Your task to perform on an android device: toggle airplane mode Image 0: 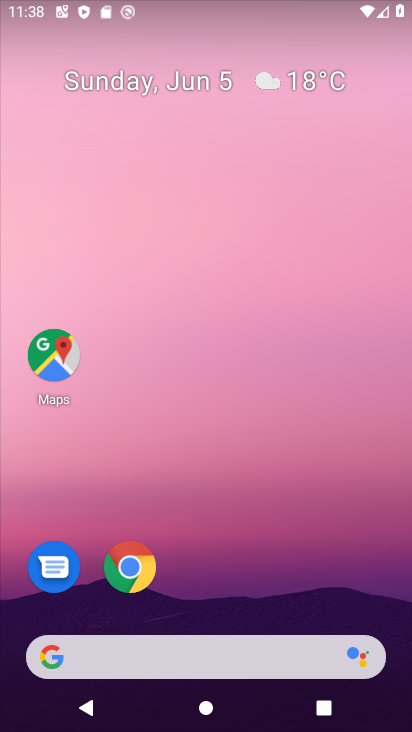
Step 0: drag from (270, 487) to (284, 28)
Your task to perform on an android device: toggle airplane mode Image 1: 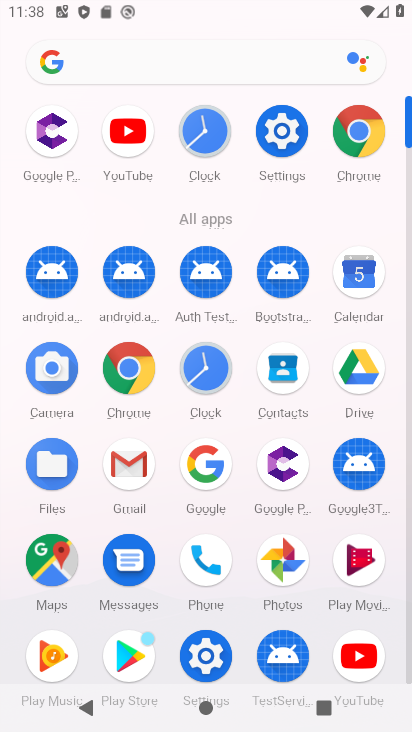
Step 1: click (279, 115)
Your task to perform on an android device: toggle airplane mode Image 2: 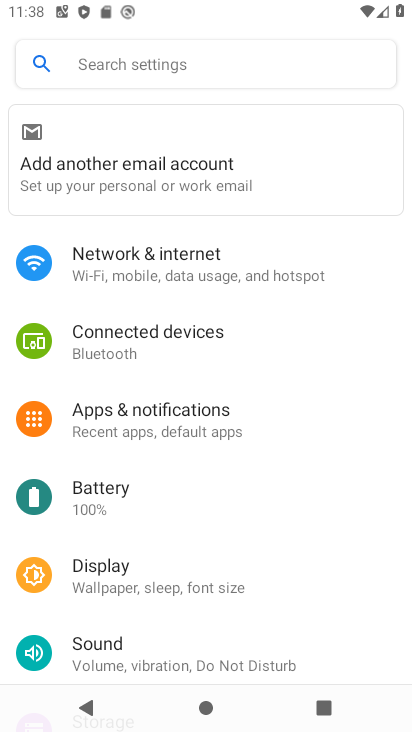
Step 2: click (236, 271)
Your task to perform on an android device: toggle airplane mode Image 3: 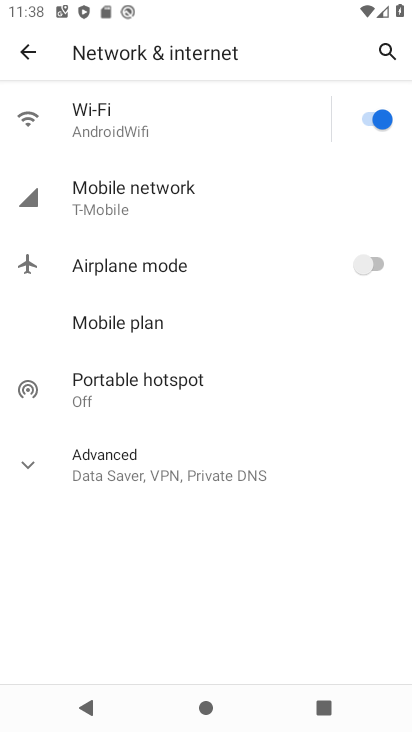
Step 3: click (364, 258)
Your task to perform on an android device: toggle airplane mode Image 4: 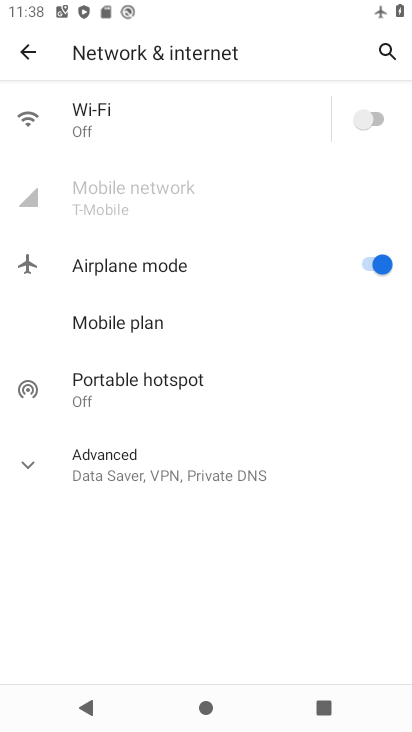
Step 4: task complete